Your task to perform on an android device: toggle sleep mode Image 0: 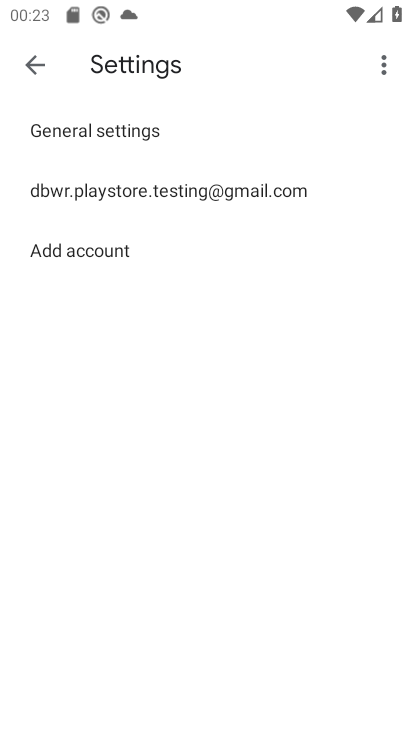
Step 0: press home button
Your task to perform on an android device: toggle sleep mode Image 1: 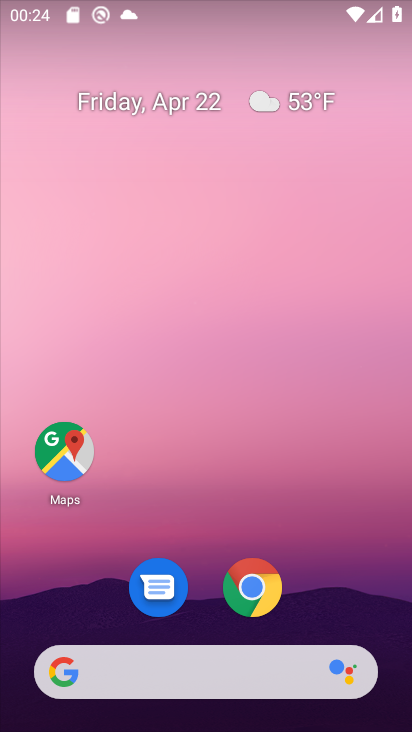
Step 1: drag from (335, 478) to (341, 70)
Your task to perform on an android device: toggle sleep mode Image 2: 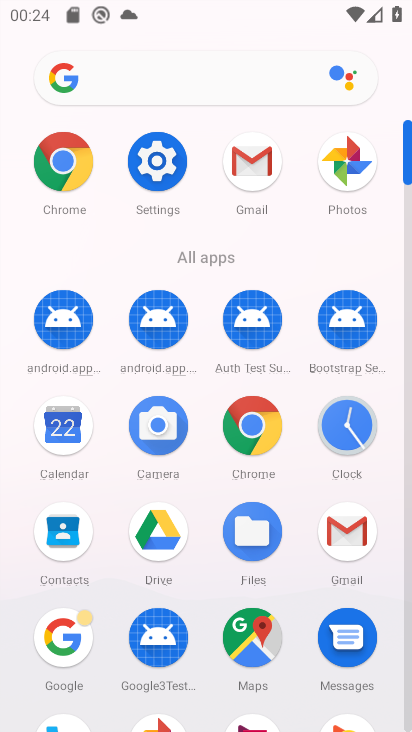
Step 2: click (155, 183)
Your task to perform on an android device: toggle sleep mode Image 3: 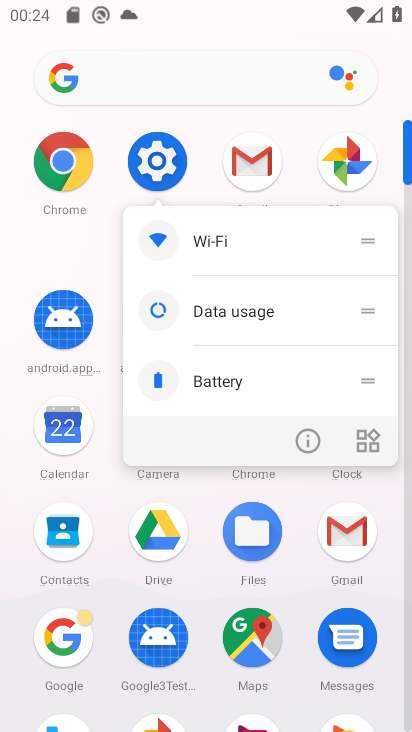
Step 3: click (149, 181)
Your task to perform on an android device: toggle sleep mode Image 4: 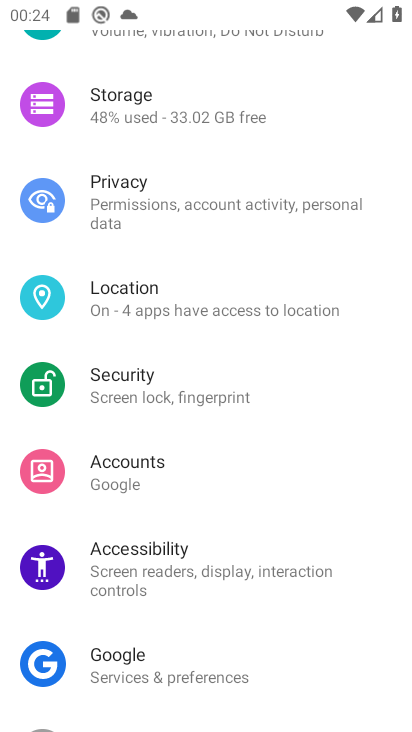
Step 4: drag from (260, 401) to (240, 702)
Your task to perform on an android device: toggle sleep mode Image 5: 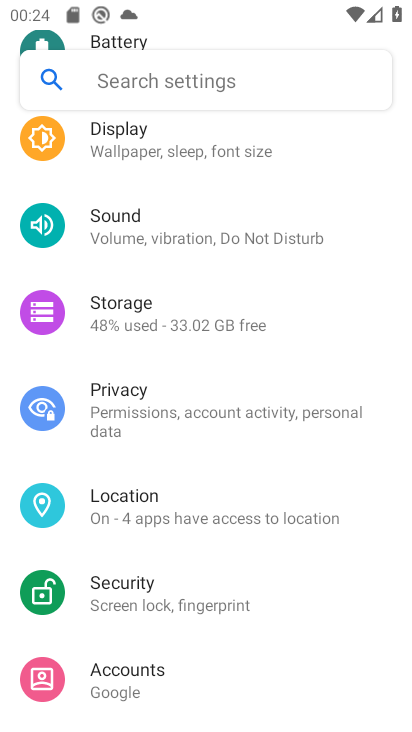
Step 5: drag from (255, 286) to (221, 615)
Your task to perform on an android device: toggle sleep mode Image 6: 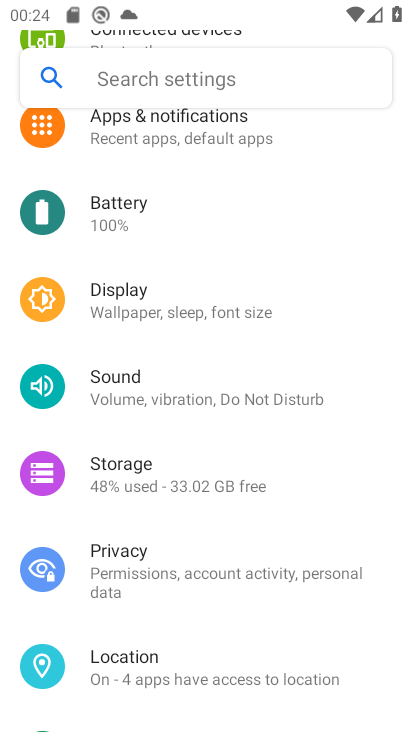
Step 6: drag from (258, 222) to (233, 482)
Your task to perform on an android device: toggle sleep mode Image 7: 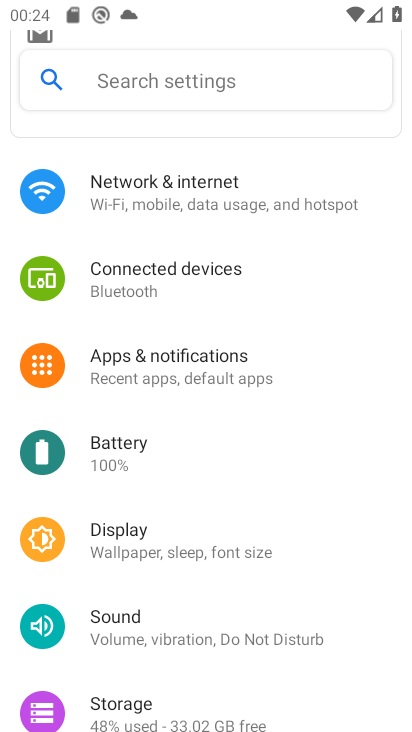
Step 7: click (176, 557)
Your task to perform on an android device: toggle sleep mode Image 8: 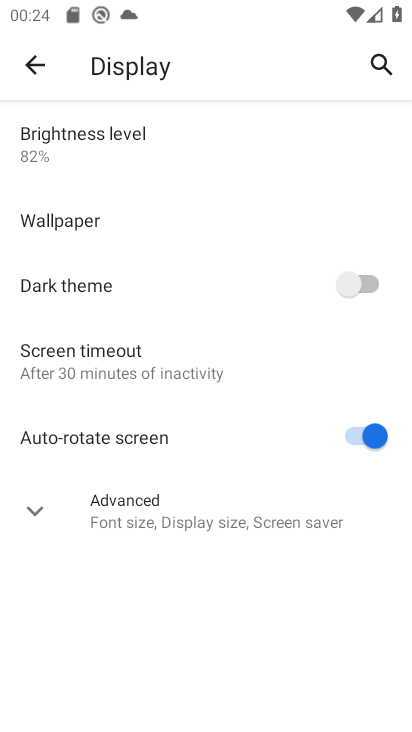
Step 8: click (36, 509)
Your task to perform on an android device: toggle sleep mode Image 9: 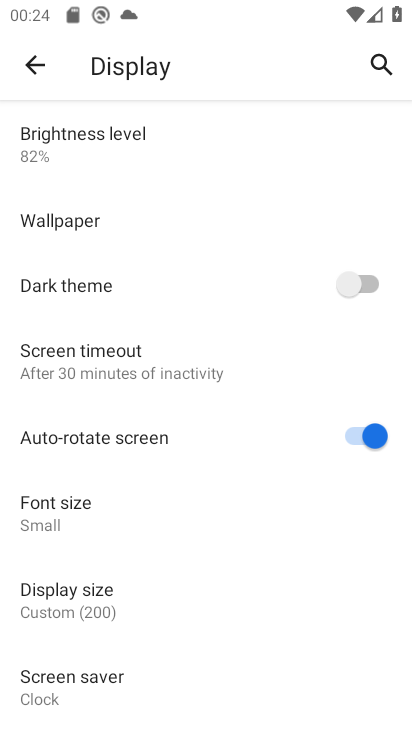
Step 9: task complete